Your task to perform on an android device: Open wifi settings Image 0: 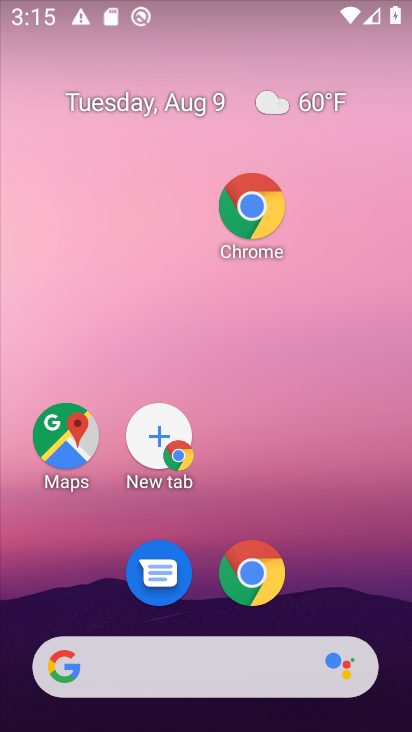
Step 0: drag from (261, 625) to (222, 376)
Your task to perform on an android device: Open wifi settings Image 1: 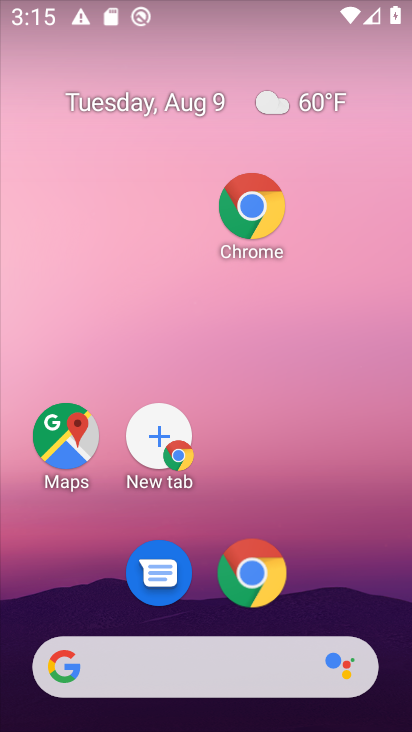
Step 1: drag from (224, 595) to (247, 244)
Your task to perform on an android device: Open wifi settings Image 2: 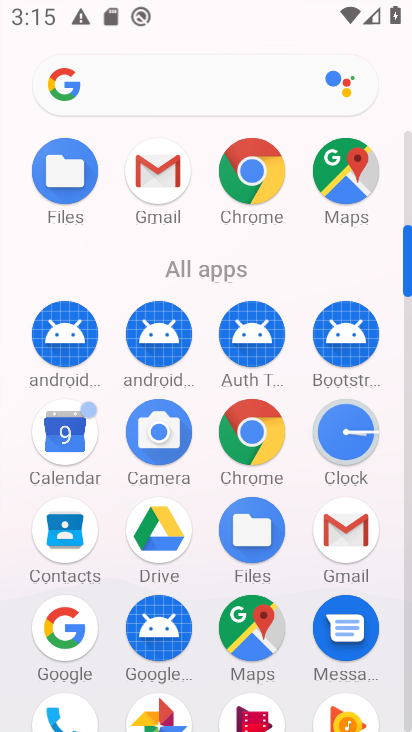
Step 2: drag from (181, 426) to (241, 208)
Your task to perform on an android device: Open wifi settings Image 3: 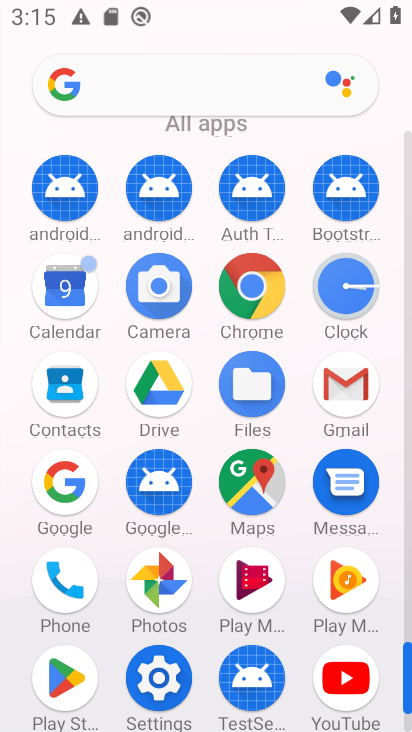
Step 3: click (162, 682)
Your task to perform on an android device: Open wifi settings Image 4: 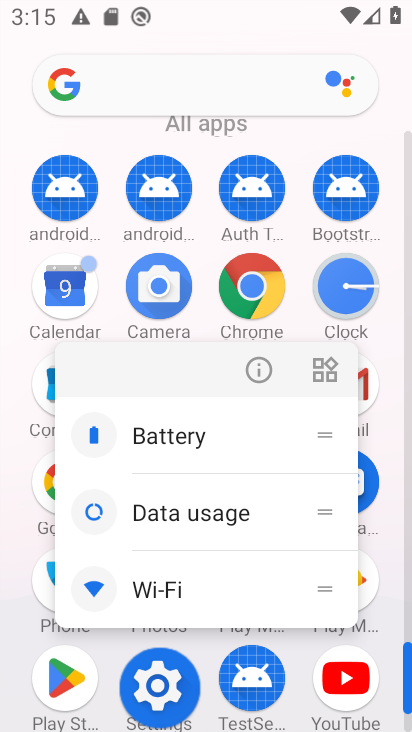
Step 4: click (159, 694)
Your task to perform on an android device: Open wifi settings Image 5: 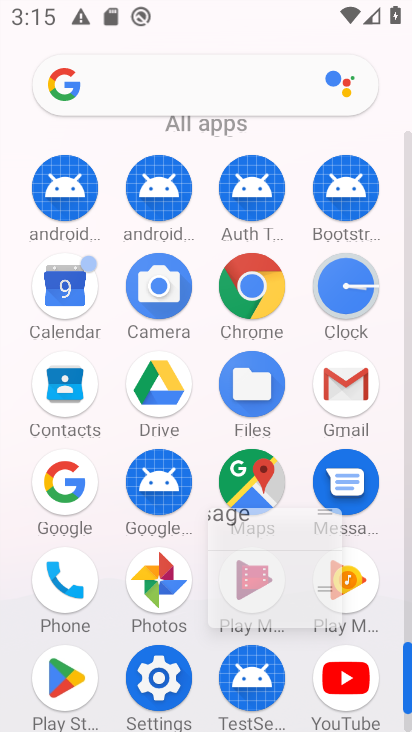
Step 5: click (161, 706)
Your task to perform on an android device: Open wifi settings Image 6: 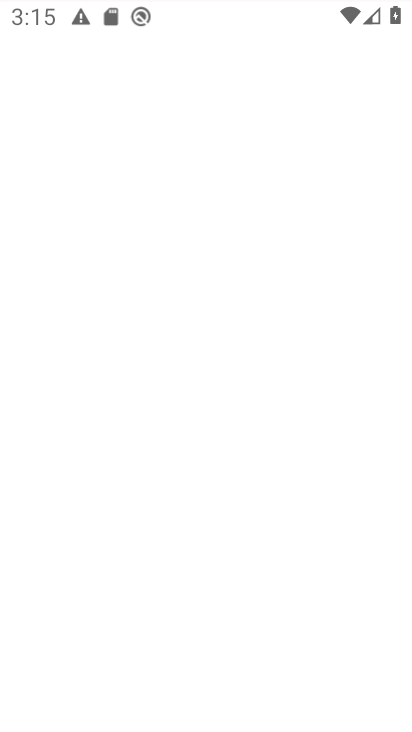
Step 6: click (157, 698)
Your task to perform on an android device: Open wifi settings Image 7: 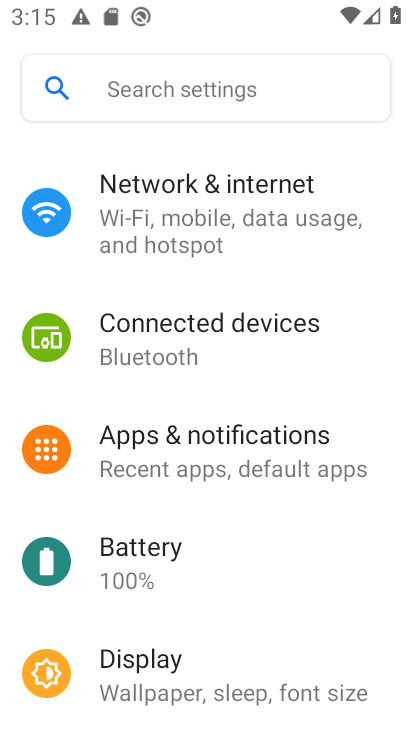
Step 7: click (161, 694)
Your task to perform on an android device: Open wifi settings Image 8: 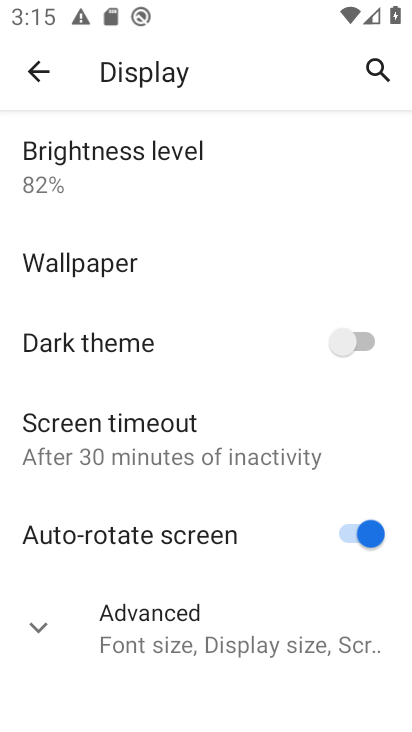
Step 8: drag from (87, 161) to (168, 585)
Your task to perform on an android device: Open wifi settings Image 9: 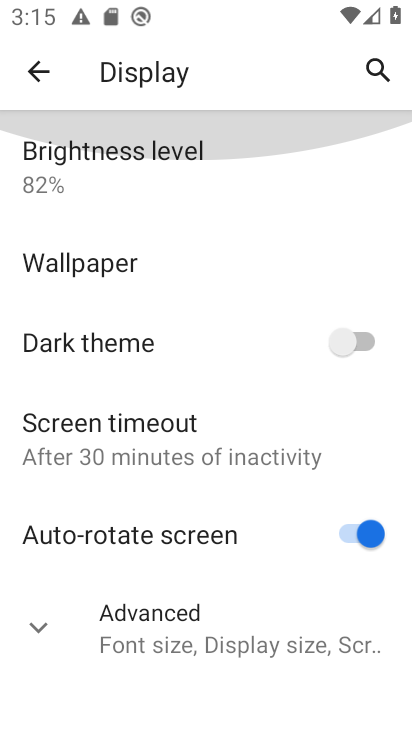
Step 9: drag from (230, 547) to (257, 645)
Your task to perform on an android device: Open wifi settings Image 10: 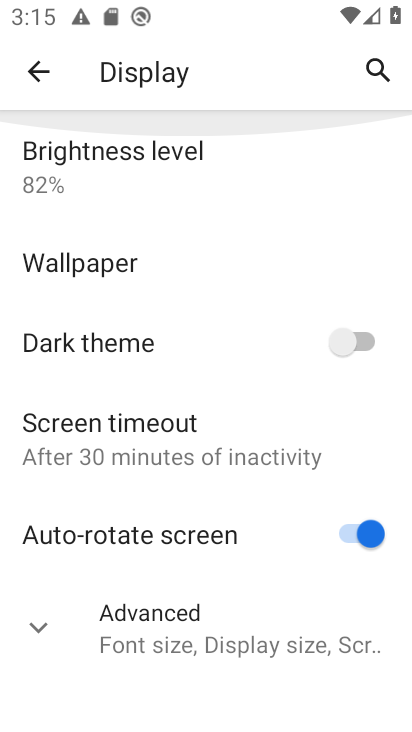
Step 10: drag from (188, 270) to (287, 656)
Your task to perform on an android device: Open wifi settings Image 11: 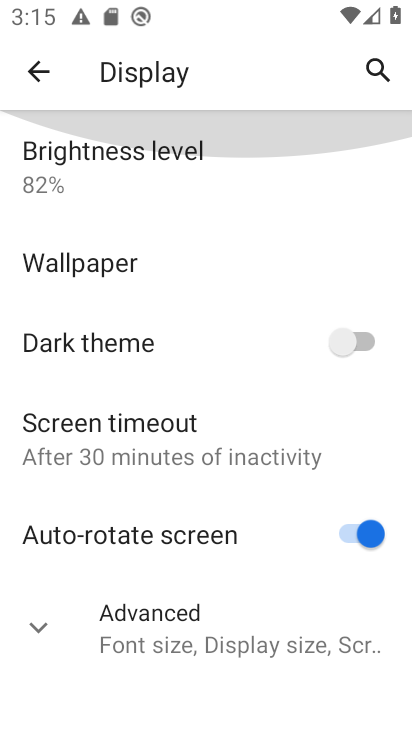
Step 11: drag from (190, 540) to (200, 601)
Your task to perform on an android device: Open wifi settings Image 12: 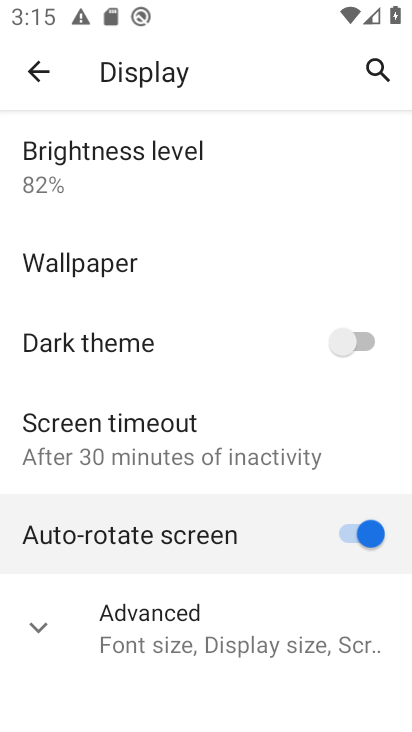
Step 12: drag from (110, 185) to (178, 662)
Your task to perform on an android device: Open wifi settings Image 13: 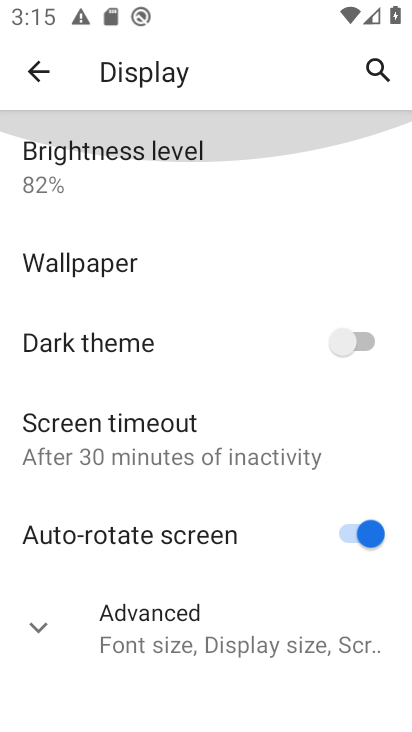
Step 13: drag from (171, 449) to (216, 719)
Your task to perform on an android device: Open wifi settings Image 14: 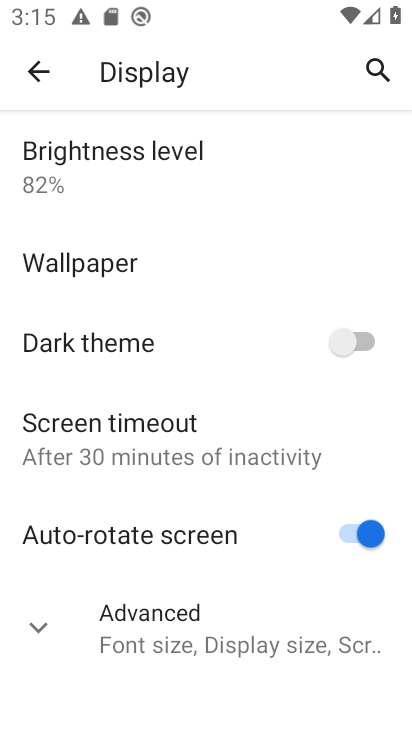
Step 14: drag from (92, 152) to (109, 515)
Your task to perform on an android device: Open wifi settings Image 15: 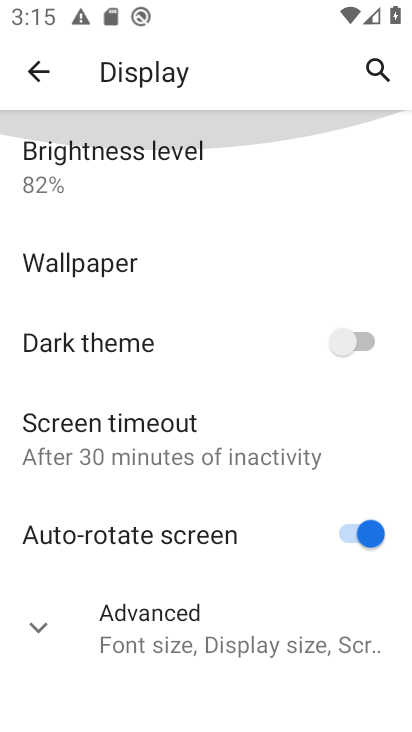
Step 15: drag from (64, 233) to (119, 434)
Your task to perform on an android device: Open wifi settings Image 16: 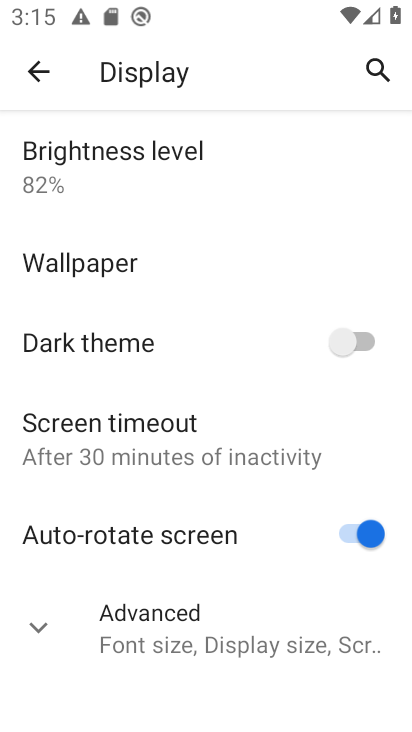
Step 16: click (25, 71)
Your task to perform on an android device: Open wifi settings Image 17: 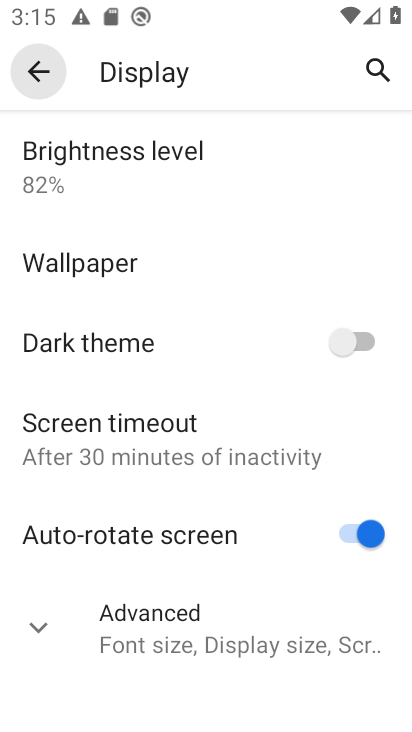
Step 17: click (31, 75)
Your task to perform on an android device: Open wifi settings Image 18: 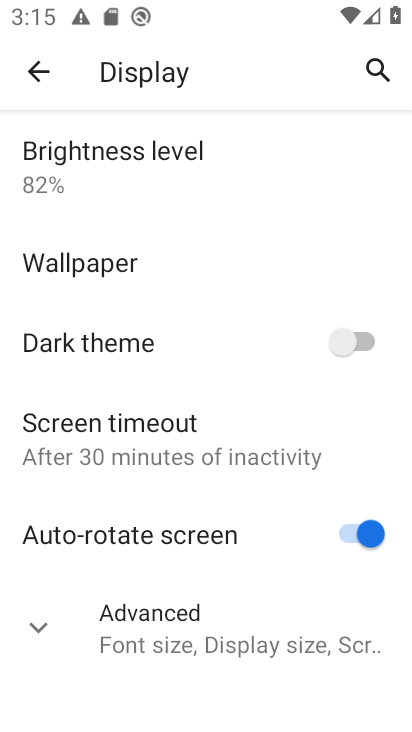
Step 18: click (31, 75)
Your task to perform on an android device: Open wifi settings Image 19: 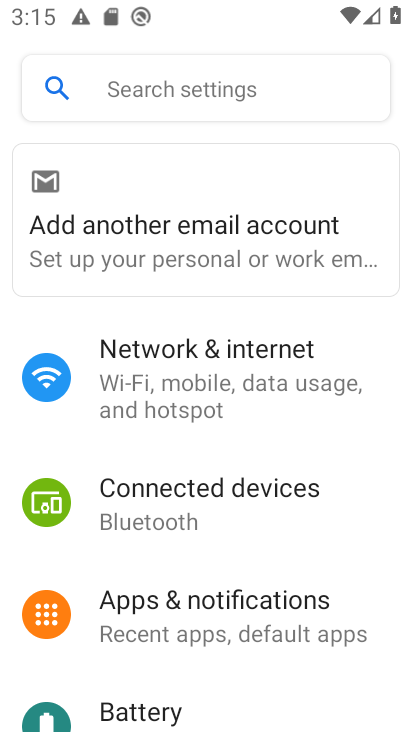
Step 19: click (166, 222)
Your task to perform on an android device: Open wifi settings Image 20: 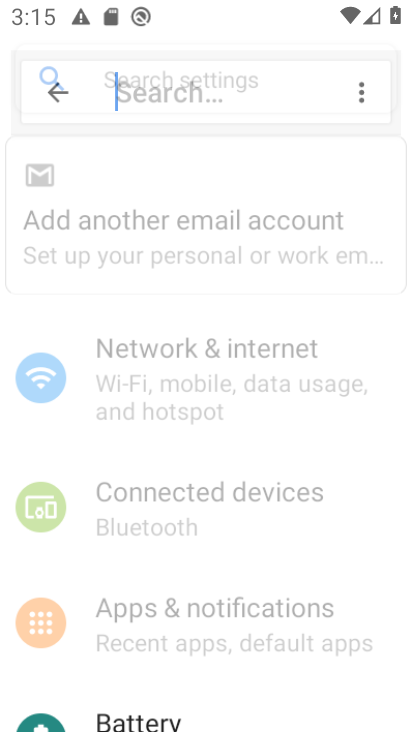
Step 20: click (134, 381)
Your task to perform on an android device: Open wifi settings Image 21: 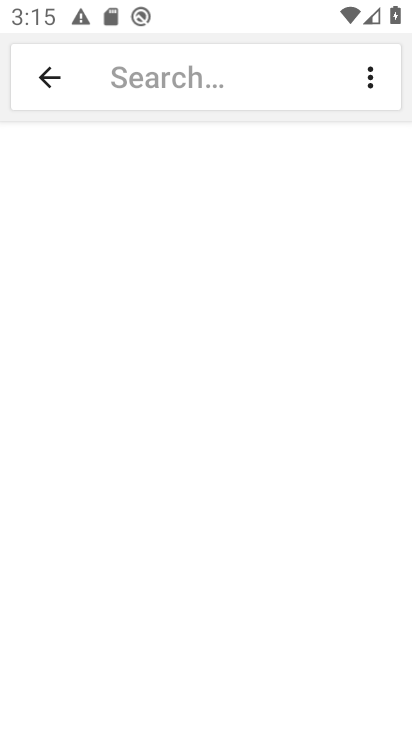
Step 21: click (144, 379)
Your task to perform on an android device: Open wifi settings Image 22: 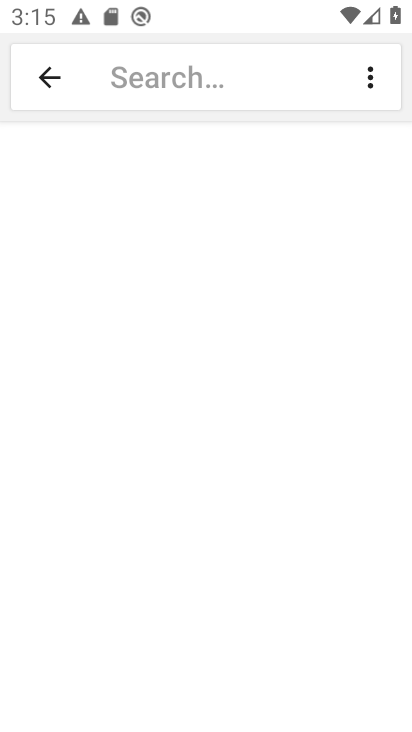
Step 22: click (204, 387)
Your task to perform on an android device: Open wifi settings Image 23: 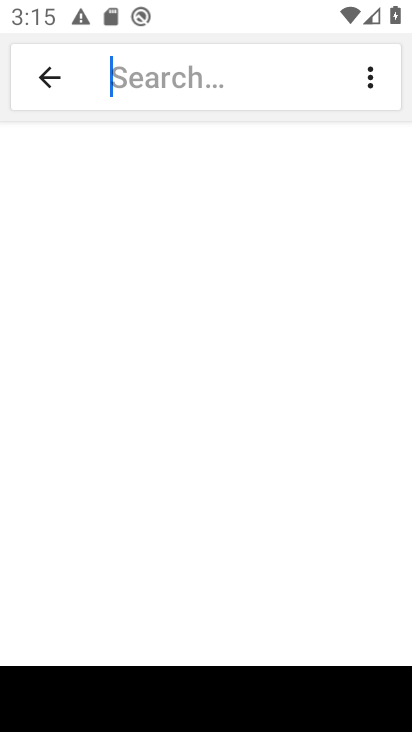
Step 23: click (48, 73)
Your task to perform on an android device: Open wifi settings Image 24: 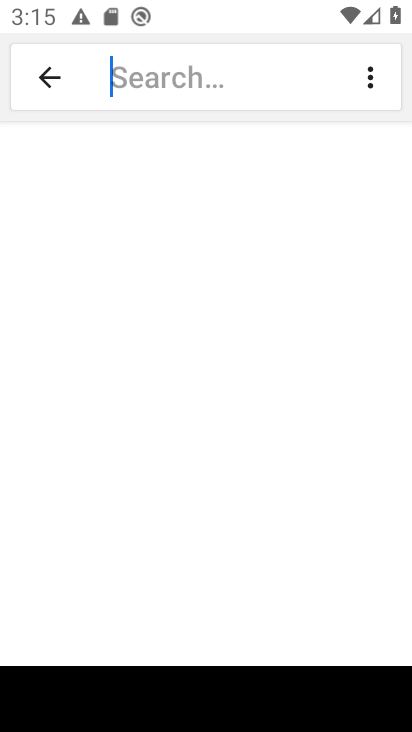
Step 24: click (55, 80)
Your task to perform on an android device: Open wifi settings Image 25: 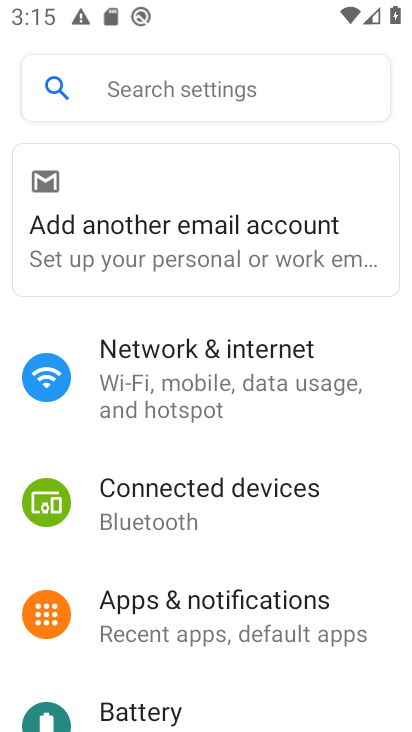
Step 25: click (202, 368)
Your task to perform on an android device: Open wifi settings Image 26: 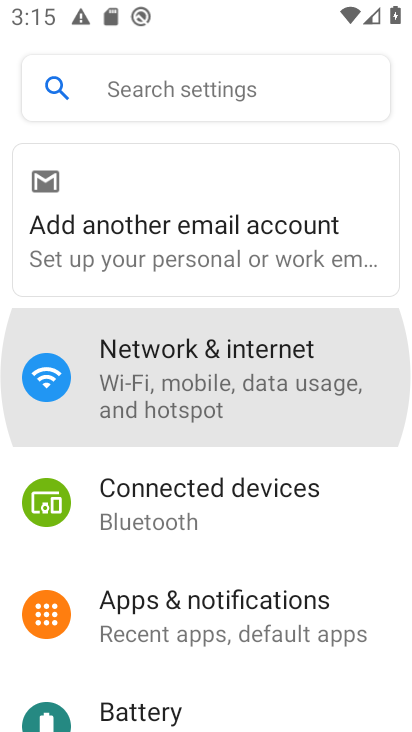
Step 26: task complete